Your task to perform on an android device: Go to Yahoo.com Image 0: 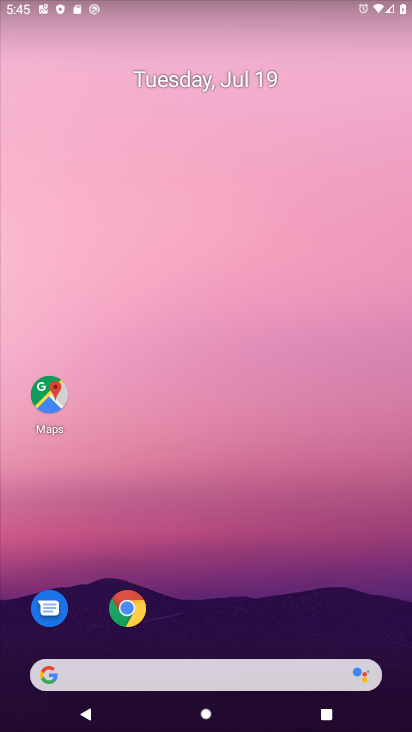
Step 0: drag from (189, 671) to (195, 163)
Your task to perform on an android device: Go to Yahoo.com Image 1: 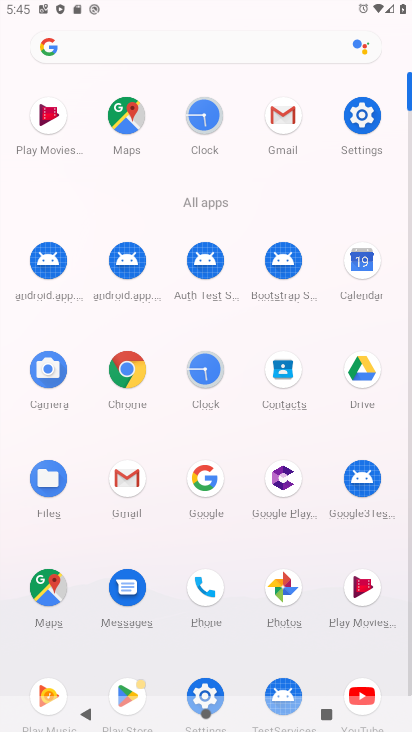
Step 1: click (129, 367)
Your task to perform on an android device: Go to Yahoo.com Image 2: 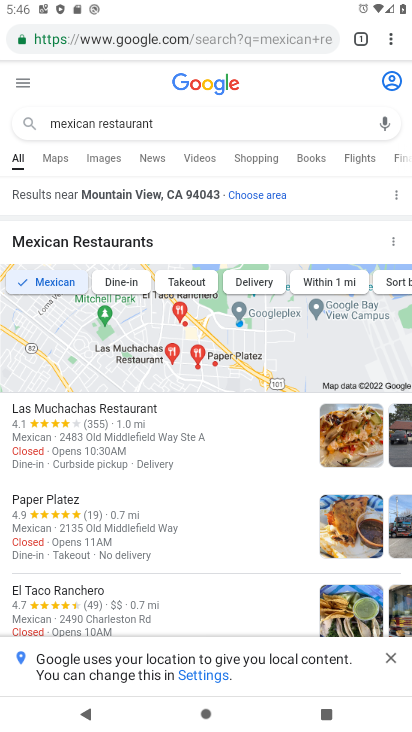
Step 2: click (238, 42)
Your task to perform on an android device: Go to Yahoo.com Image 3: 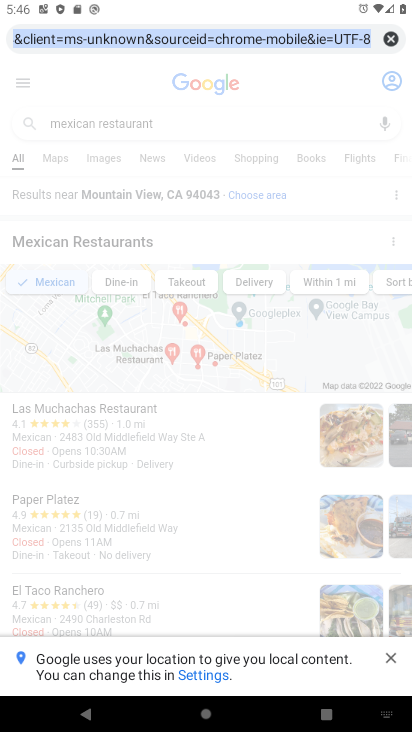
Step 3: type "yahoo.com"
Your task to perform on an android device: Go to Yahoo.com Image 4: 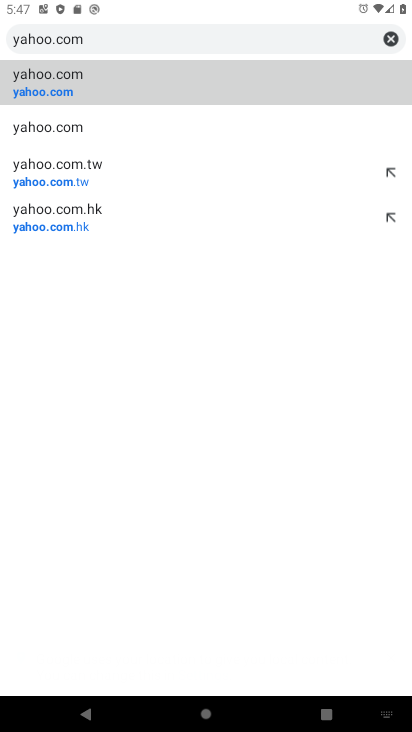
Step 4: click (61, 68)
Your task to perform on an android device: Go to Yahoo.com Image 5: 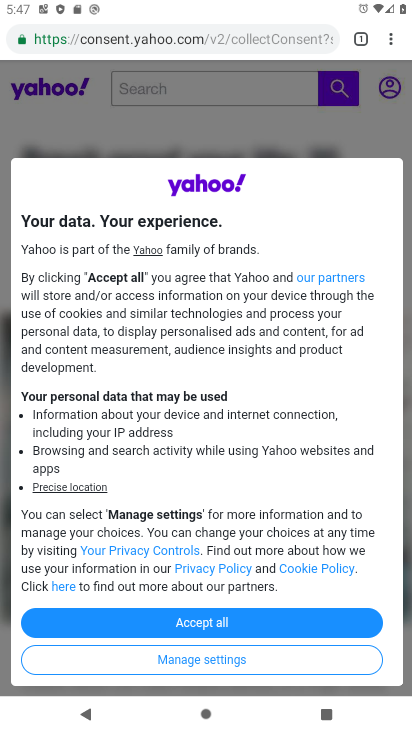
Step 5: task complete